Your task to perform on an android device: Empty the shopping cart on target. Search for usb-c to usb-b on target, select the first entry, add it to the cart, then select checkout. Image 0: 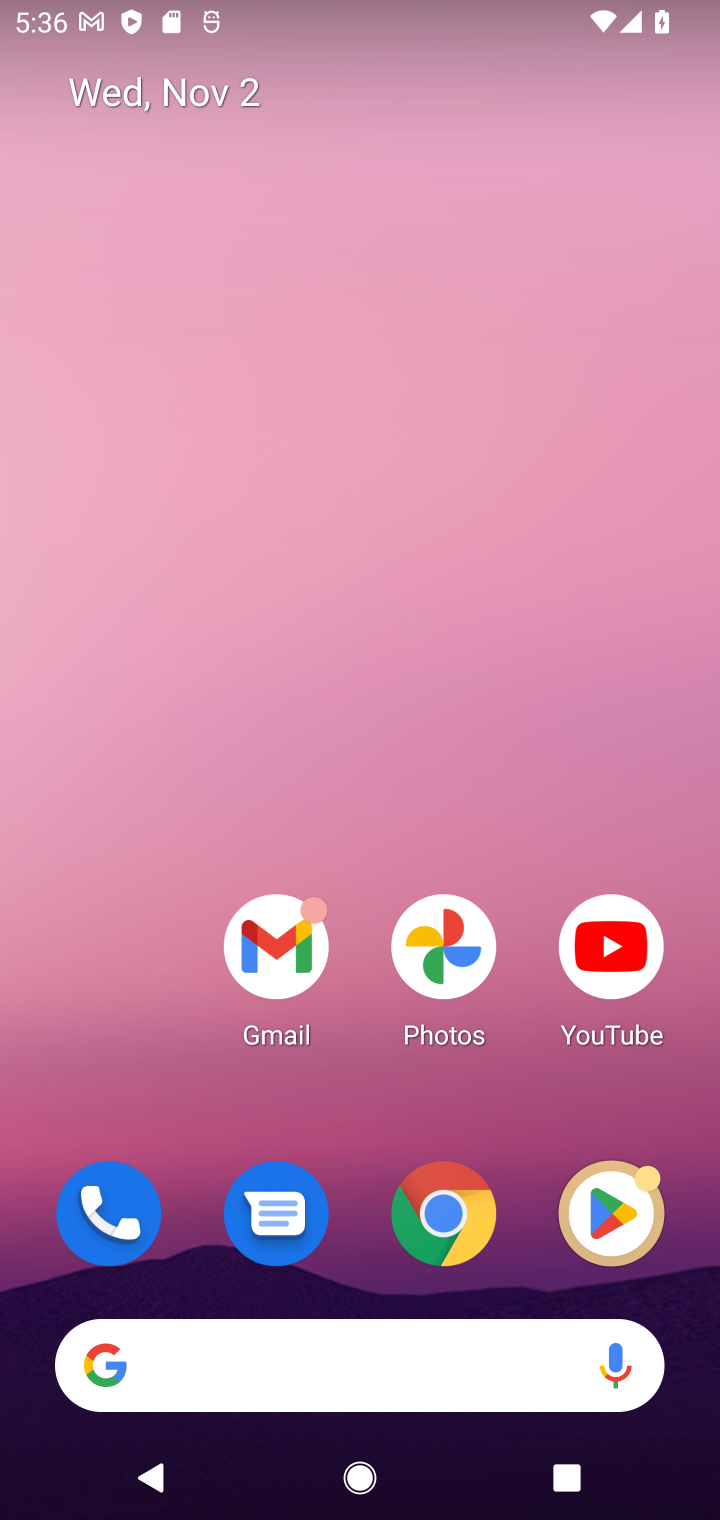
Step 0: click (443, 1209)
Your task to perform on an android device: Empty the shopping cart on target. Search for usb-c to usb-b on target, select the first entry, add it to the cart, then select checkout. Image 1: 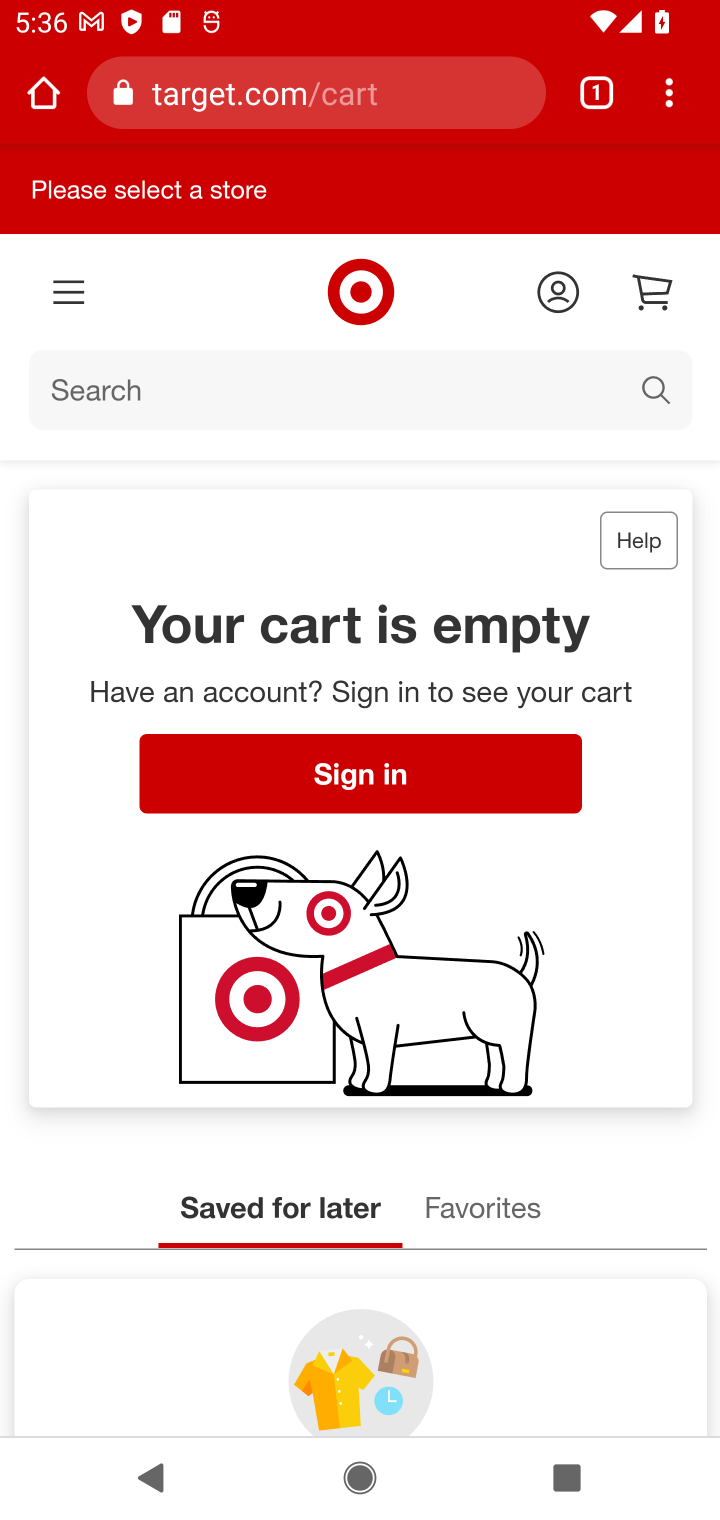
Step 1: click (382, 76)
Your task to perform on an android device: Empty the shopping cart on target. Search for usb-c to usb-b on target, select the first entry, add it to the cart, then select checkout. Image 2: 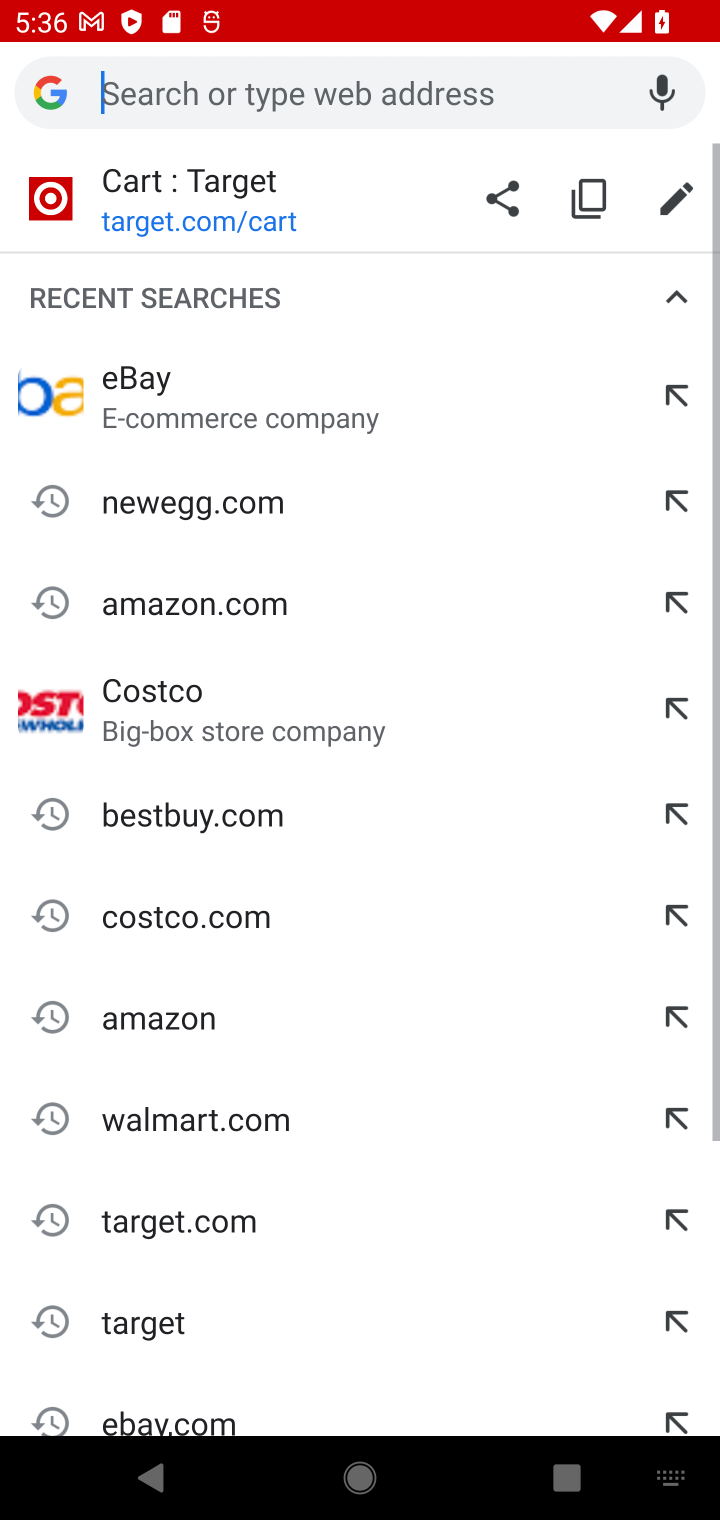
Step 2: click (163, 195)
Your task to perform on an android device: Empty the shopping cart on target. Search for usb-c to usb-b on target, select the first entry, add it to the cart, then select checkout. Image 3: 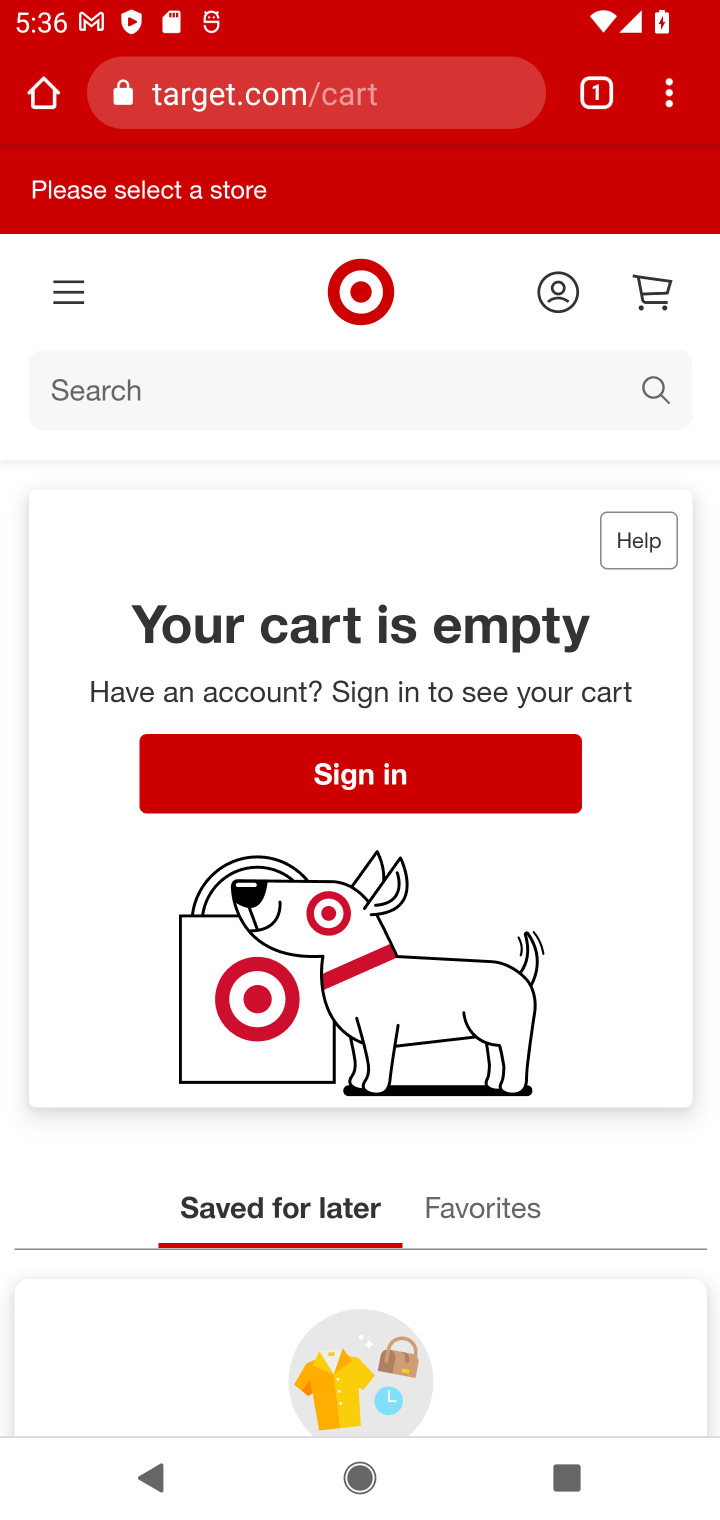
Step 3: click (644, 295)
Your task to perform on an android device: Empty the shopping cart on target. Search for usb-c to usb-b on target, select the first entry, add it to the cart, then select checkout. Image 4: 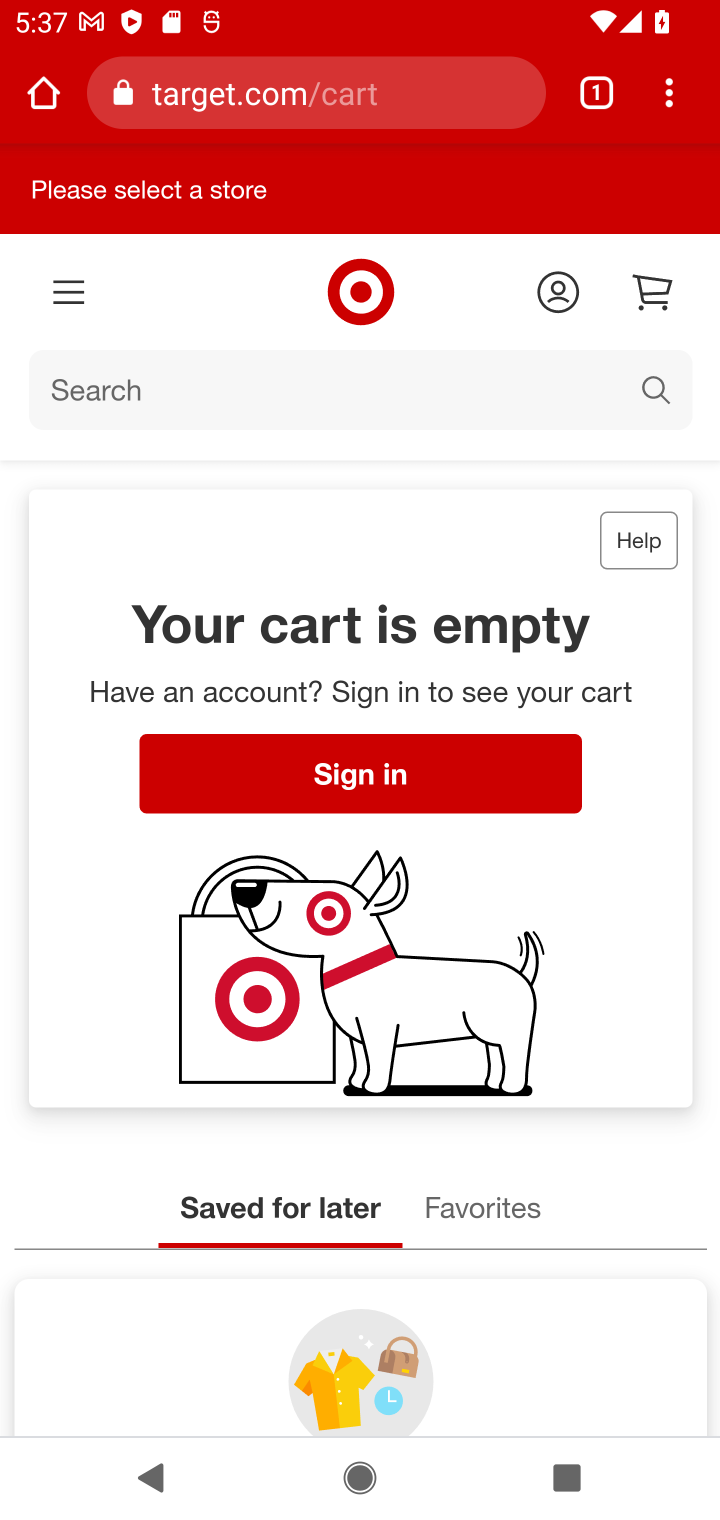
Step 4: click (175, 380)
Your task to perform on an android device: Empty the shopping cart on target. Search for usb-c to usb-b on target, select the first entry, add it to the cart, then select checkout. Image 5: 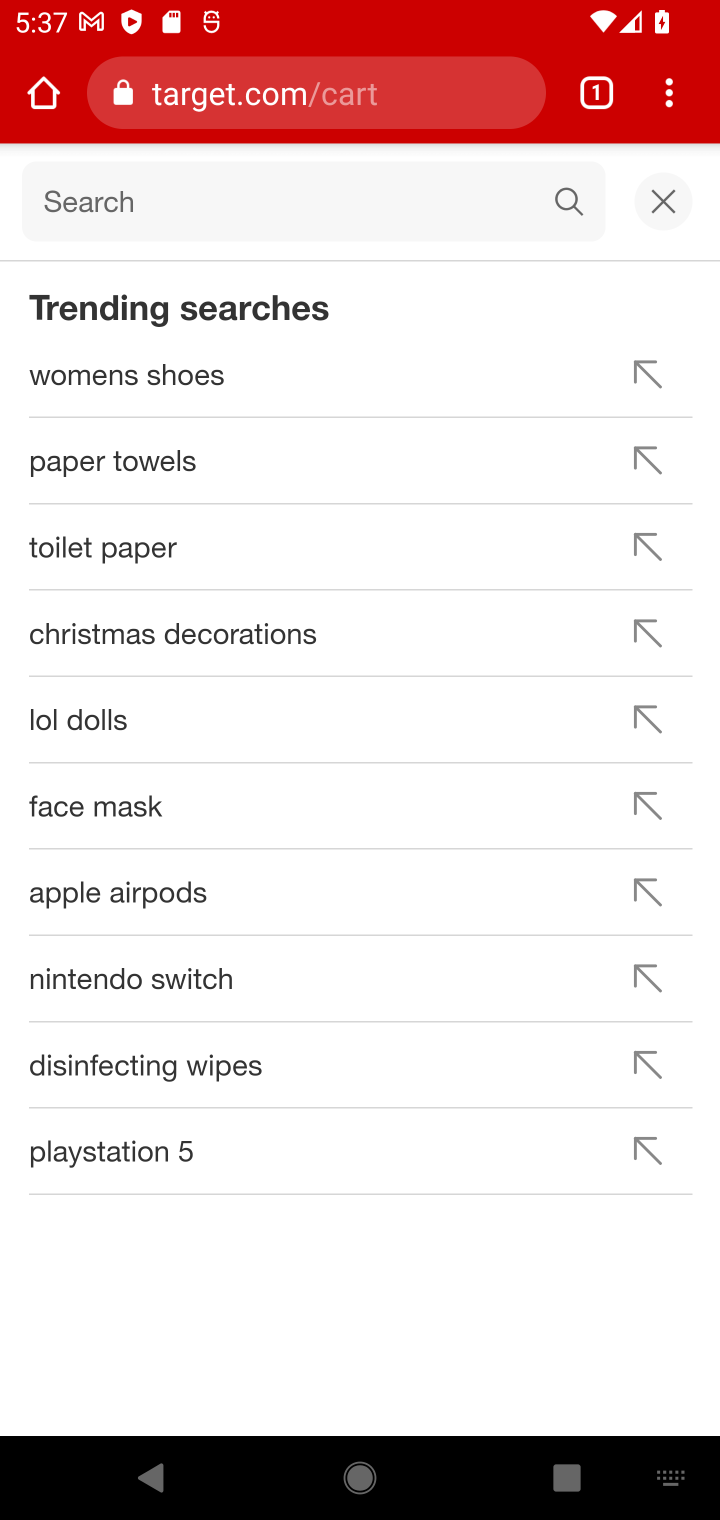
Step 5: type "usb-c to usb-b"
Your task to perform on an android device: Empty the shopping cart on target. Search for usb-c to usb-b on target, select the first entry, add it to the cart, then select checkout. Image 6: 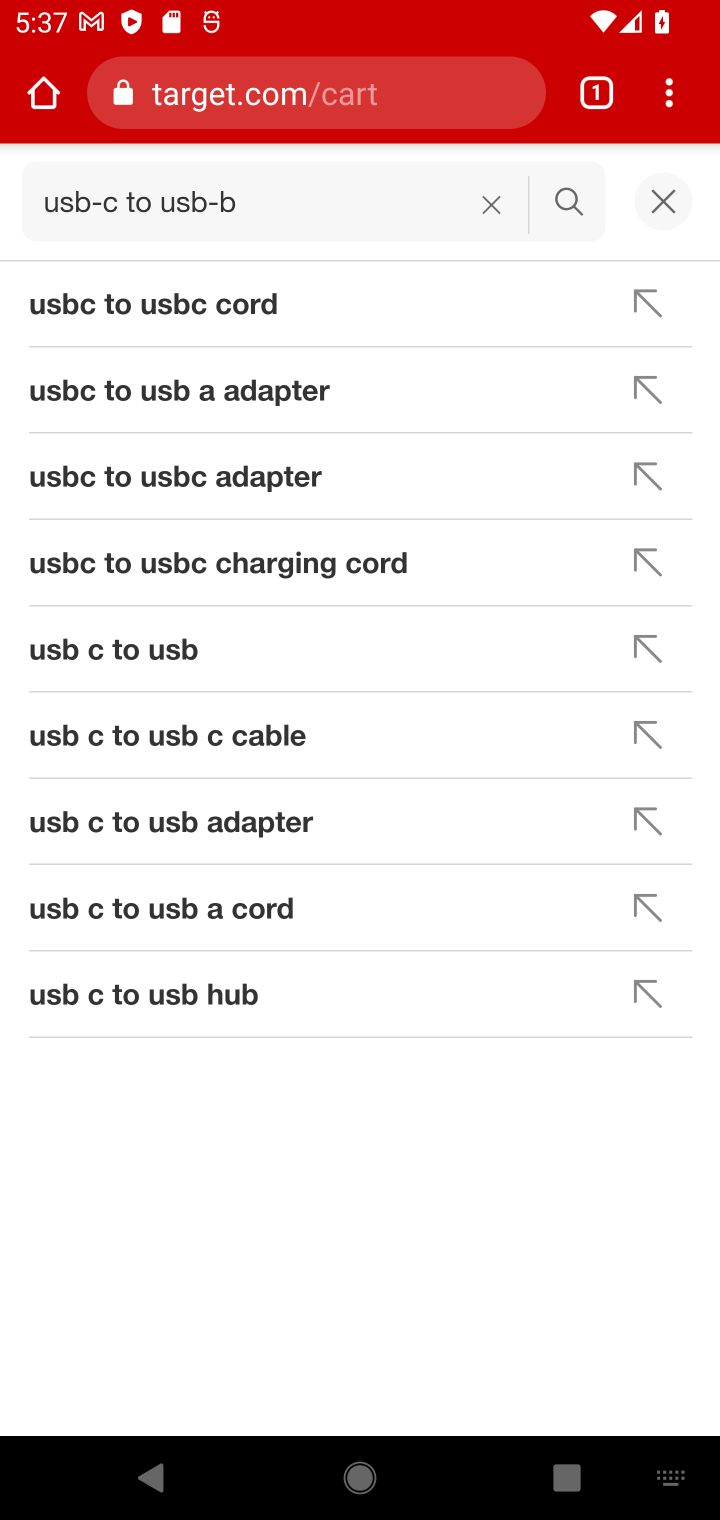
Step 6: click (125, 304)
Your task to perform on an android device: Empty the shopping cart on target. Search for usb-c to usb-b on target, select the first entry, add it to the cart, then select checkout. Image 7: 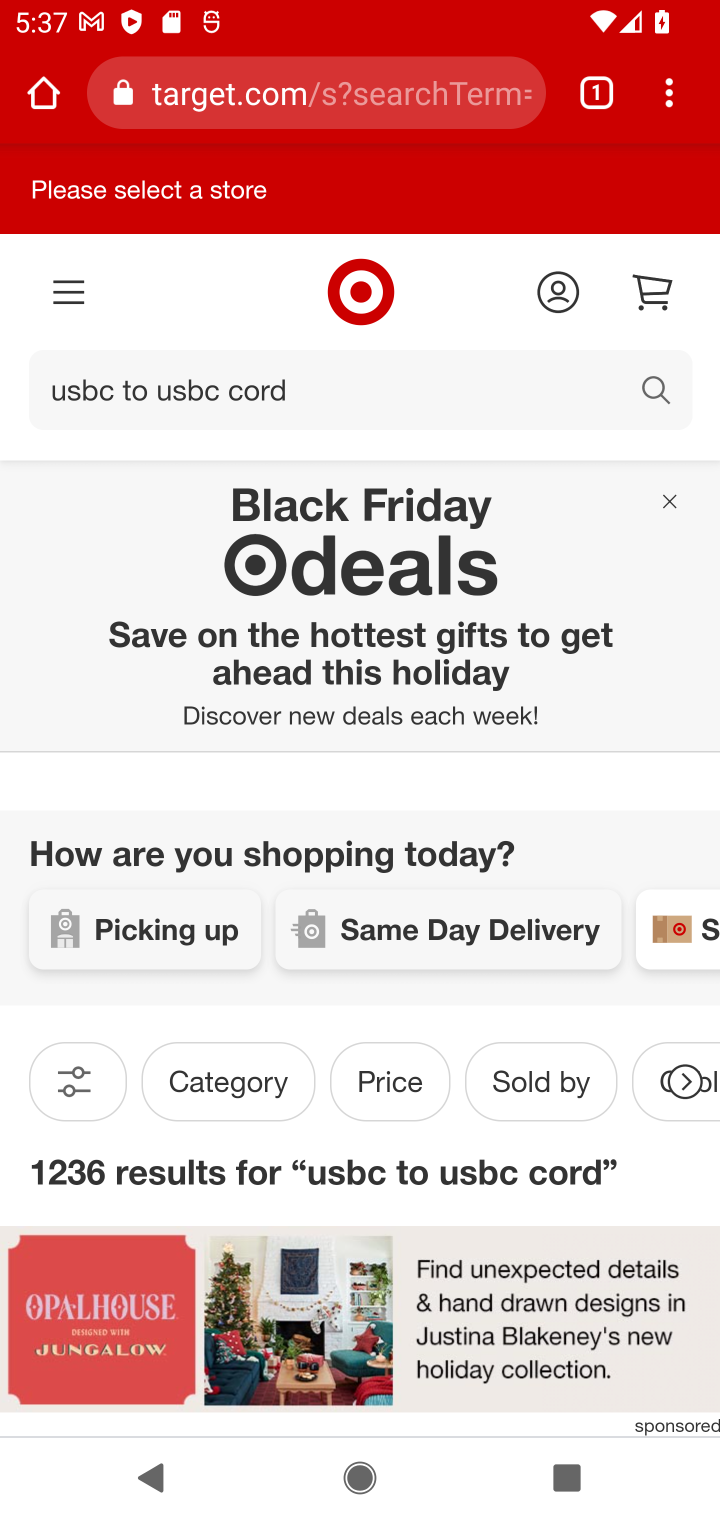
Step 7: drag from (403, 819) to (344, 353)
Your task to perform on an android device: Empty the shopping cart on target. Search for usb-c to usb-b on target, select the first entry, add it to the cart, then select checkout. Image 8: 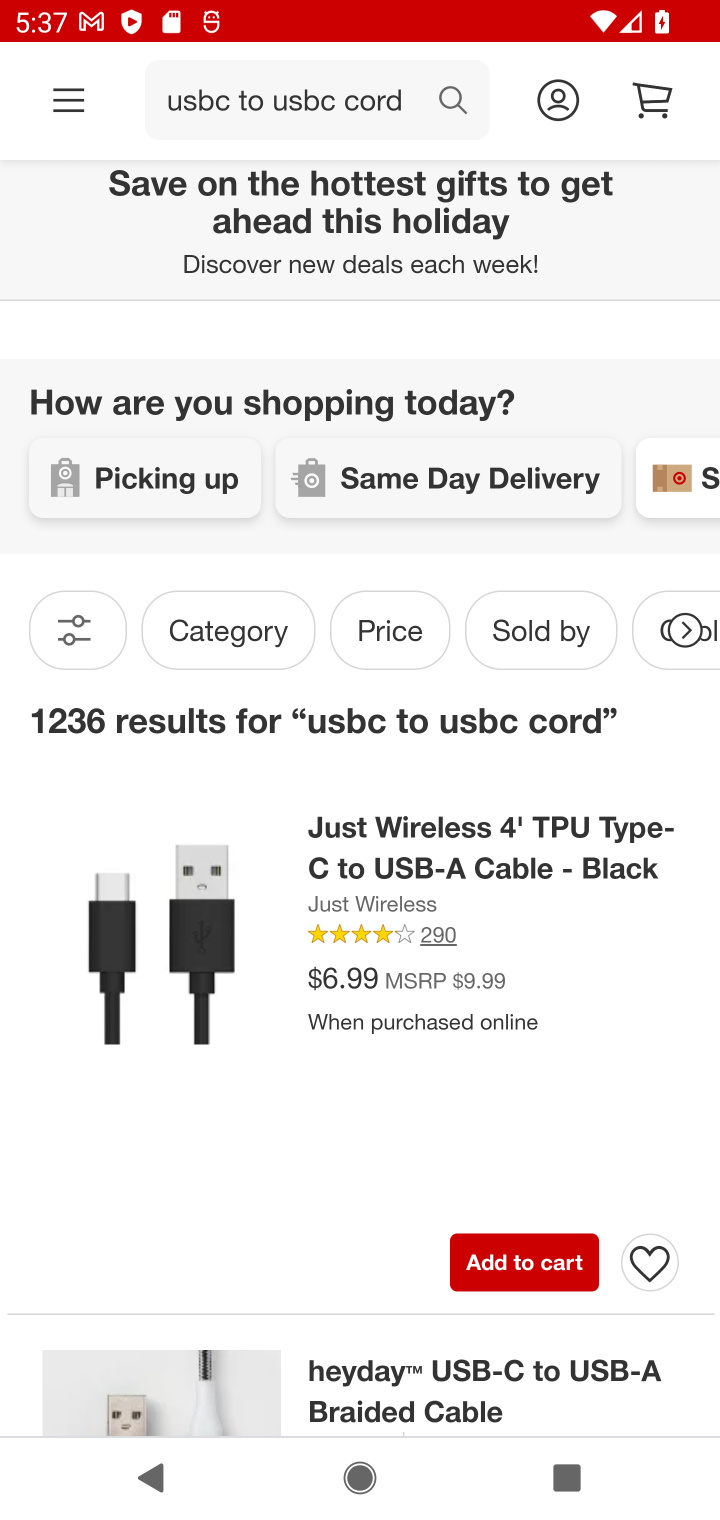
Step 8: click (519, 1256)
Your task to perform on an android device: Empty the shopping cart on target. Search for usb-c to usb-b on target, select the first entry, add it to the cart, then select checkout. Image 9: 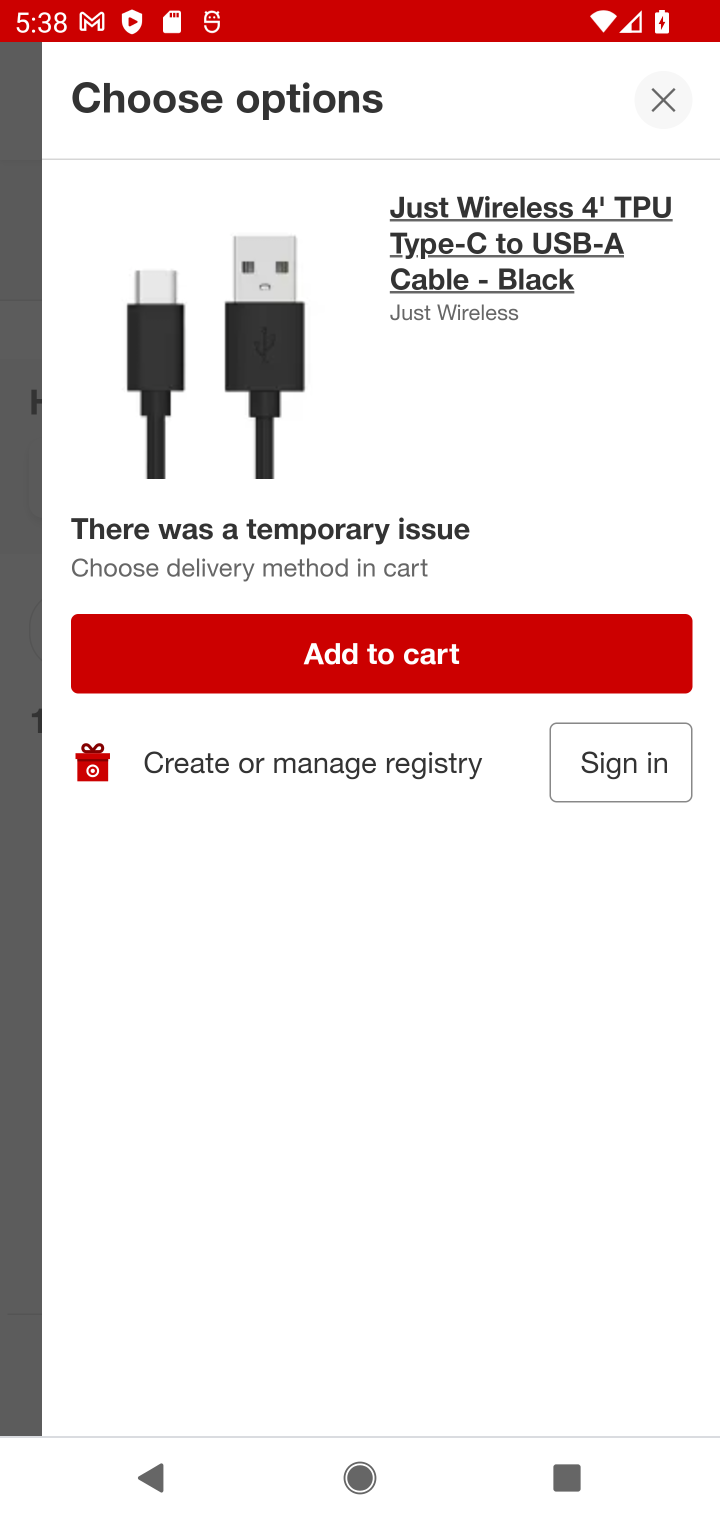
Step 9: click (356, 656)
Your task to perform on an android device: Empty the shopping cart on target. Search for usb-c to usb-b on target, select the first entry, add it to the cart, then select checkout. Image 10: 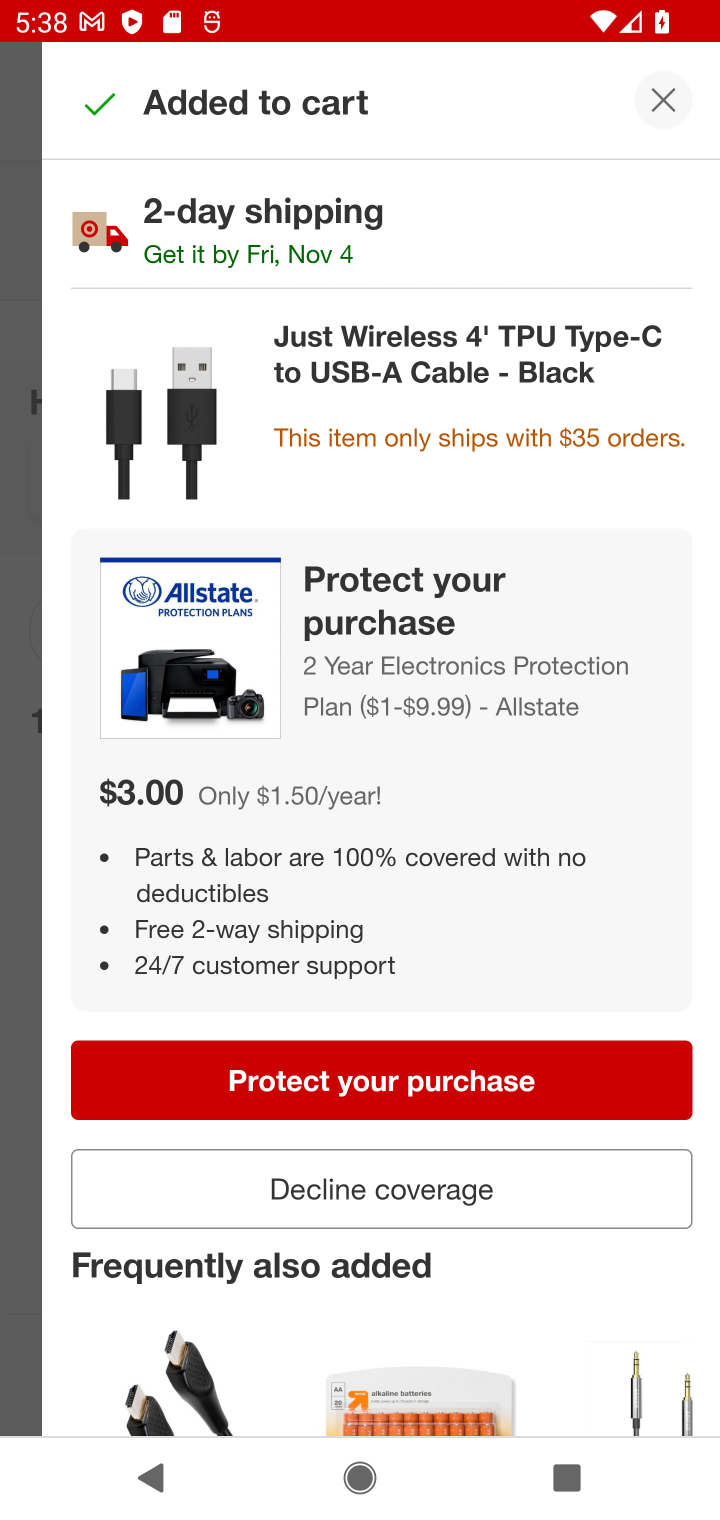
Step 10: task complete